Your task to perform on an android device: change notifications settings Image 0: 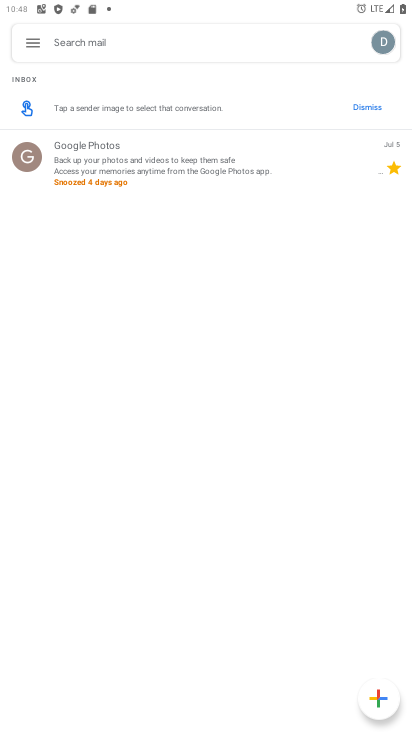
Step 0: press home button
Your task to perform on an android device: change notifications settings Image 1: 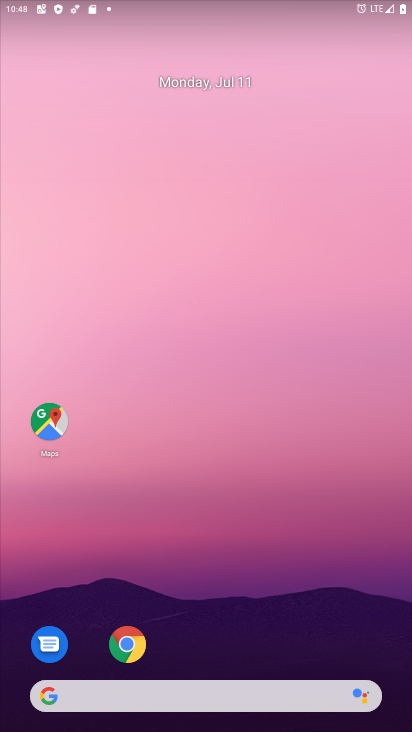
Step 1: drag from (240, 661) to (241, 127)
Your task to perform on an android device: change notifications settings Image 2: 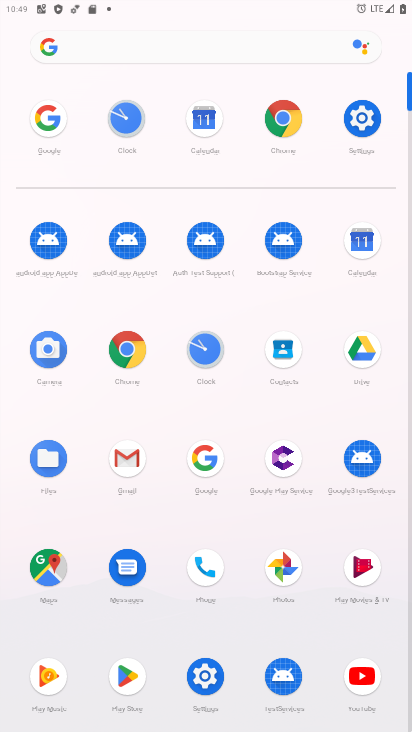
Step 2: click (356, 116)
Your task to perform on an android device: change notifications settings Image 3: 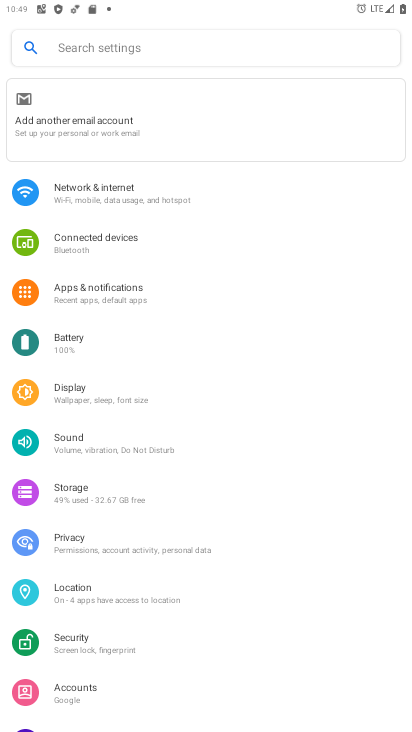
Step 3: click (120, 304)
Your task to perform on an android device: change notifications settings Image 4: 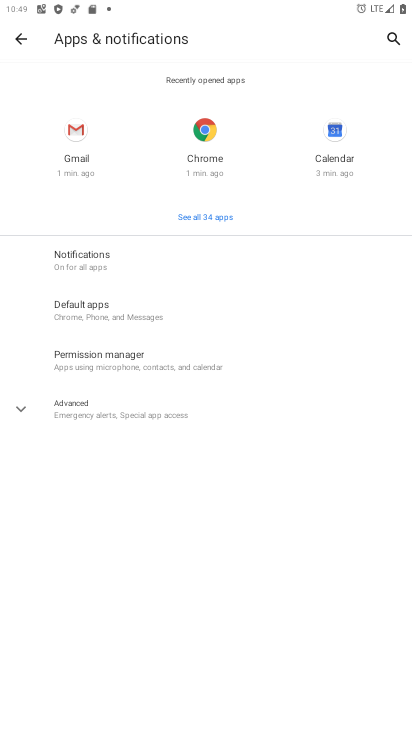
Step 4: click (214, 222)
Your task to perform on an android device: change notifications settings Image 5: 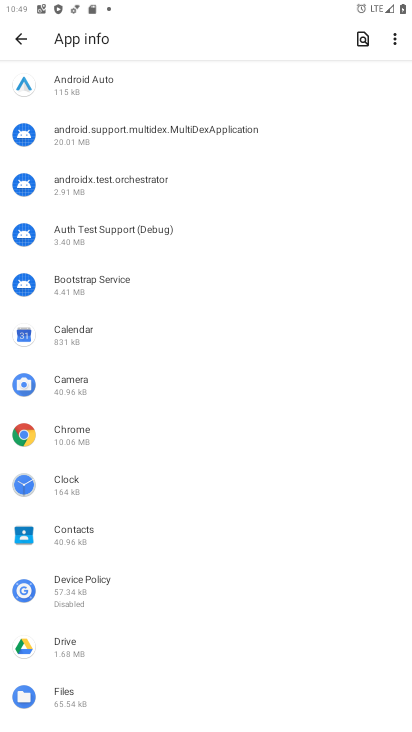
Step 5: click (7, 23)
Your task to perform on an android device: change notifications settings Image 6: 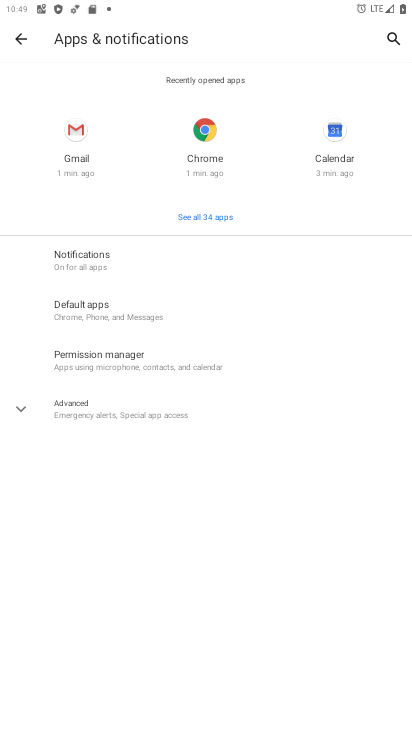
Step 6: click (149, 276)
Your task to perform on an android device: change notifications settings Image 7: 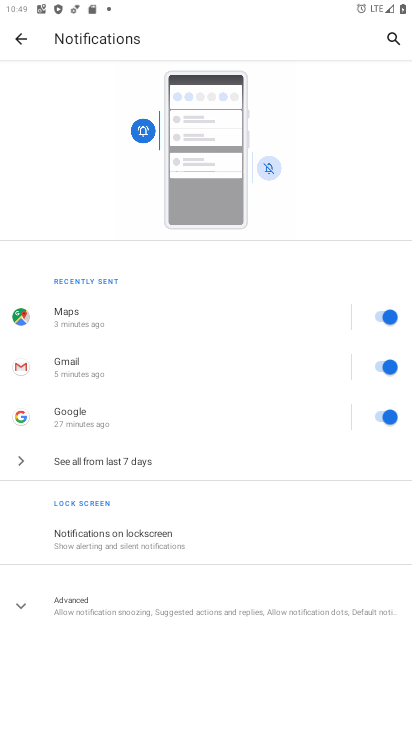
Step 7: click (165, 447)
Your task to perform on an android device: change notifications settings Image 8: 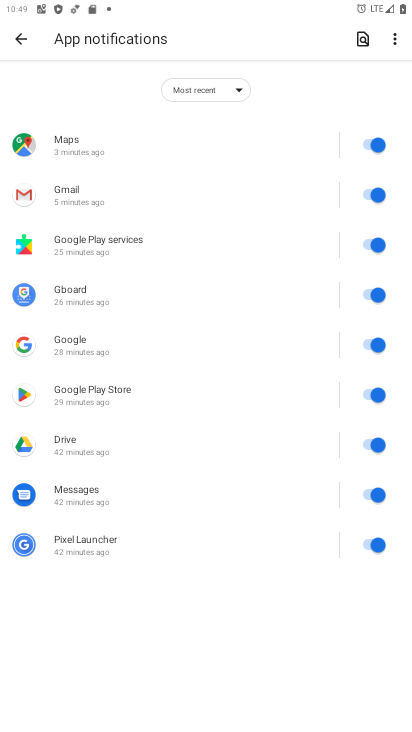
Step 8: click (366, 141)
Your task to perform on an android device: change notifications settings Image 9: 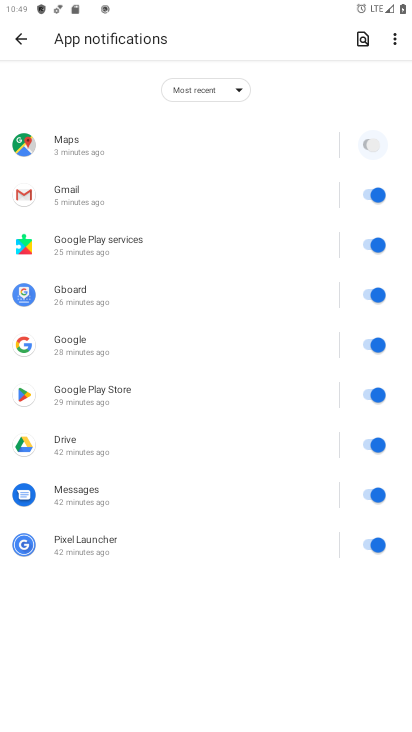
Step 9: click (371, 193)
Your task to perform on an android device: change notifications settings Image 10: 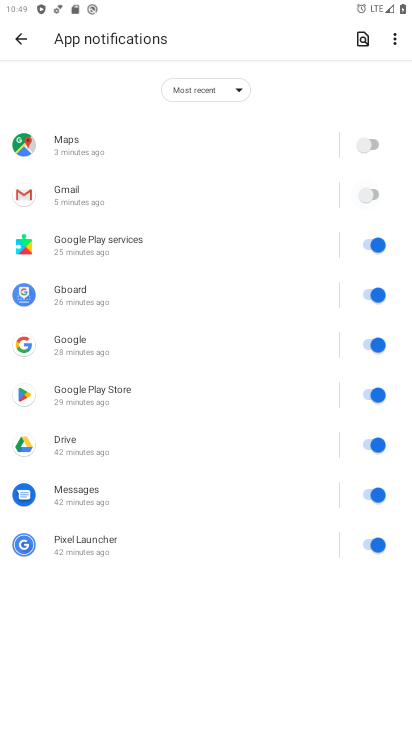
Step 10: click (371, 245)
Your task to perform on an android device: change notifications settings Image 11: 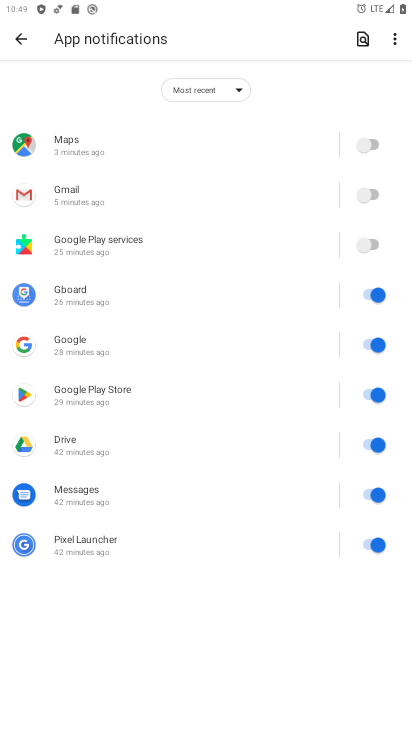
Step 11: click (379, 301)
Your task to perform on an android device: change notifications settings Image 12: 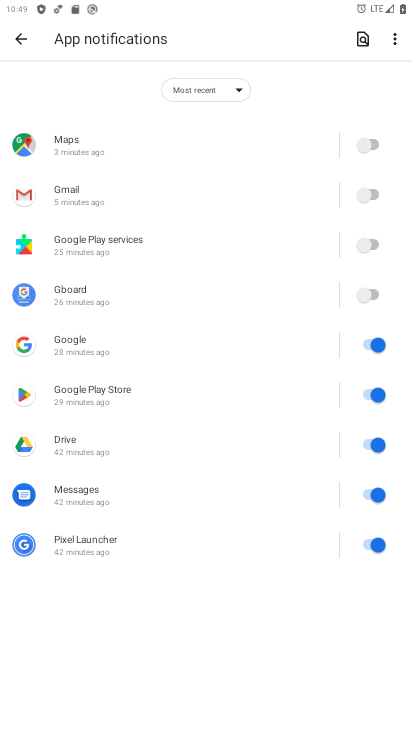
Step 12: click (377, 343)
Your task to perform on an android device: change notifications settings Image 13: 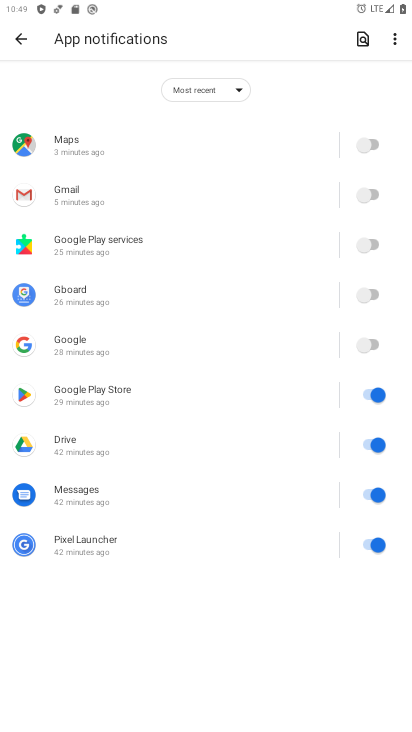
Step 13: click (373, 395)
Your task to perform on an android device: change notifications settings Image 14: 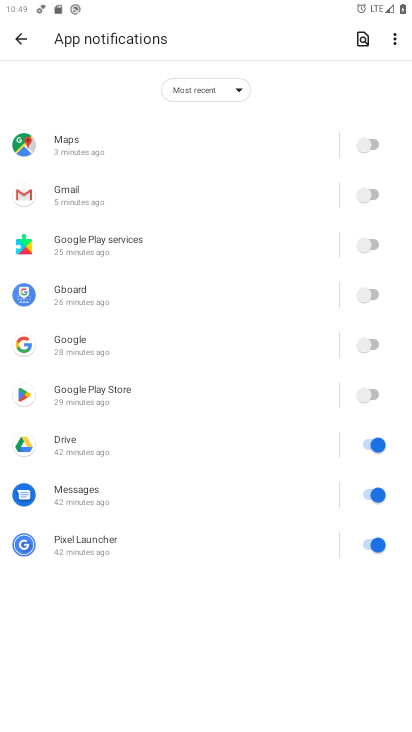
Step 14: click (375, 448)
Your task to perform on an android device: change notifications settings Image 15: 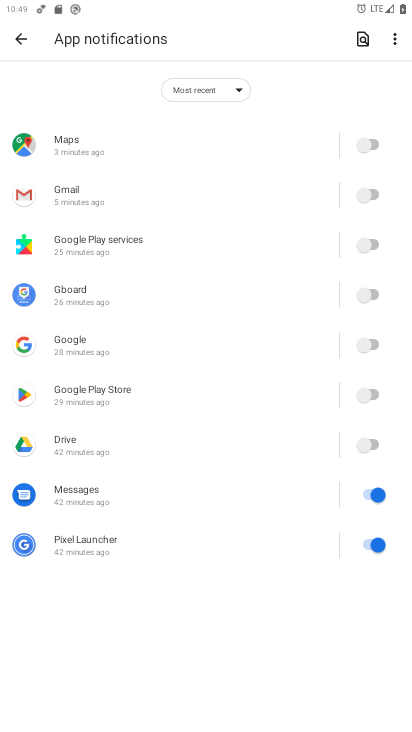
Step 15: click (364, 498)
Your task to perform on an android device: change notifications settings Image 16: 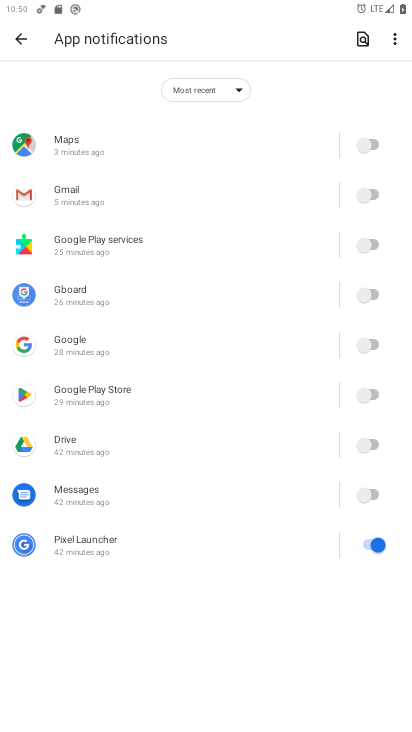
Step 16: click (377, 543)
Your task to perform on an android device: change notifications settings Image 17: 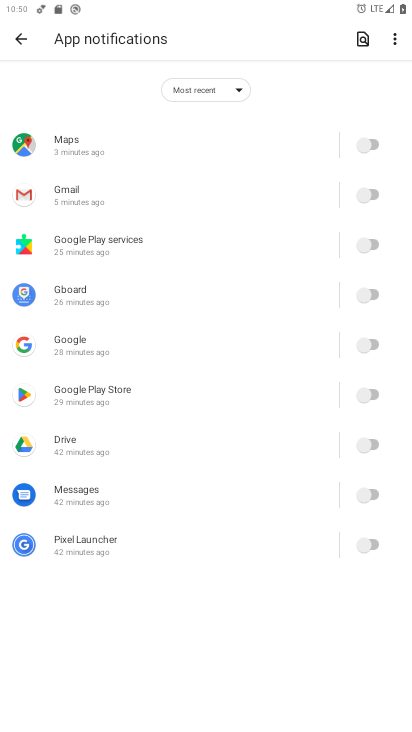
Step 17: task complete